Your task to perform on an android device: open app "Truecaller" Image 0: 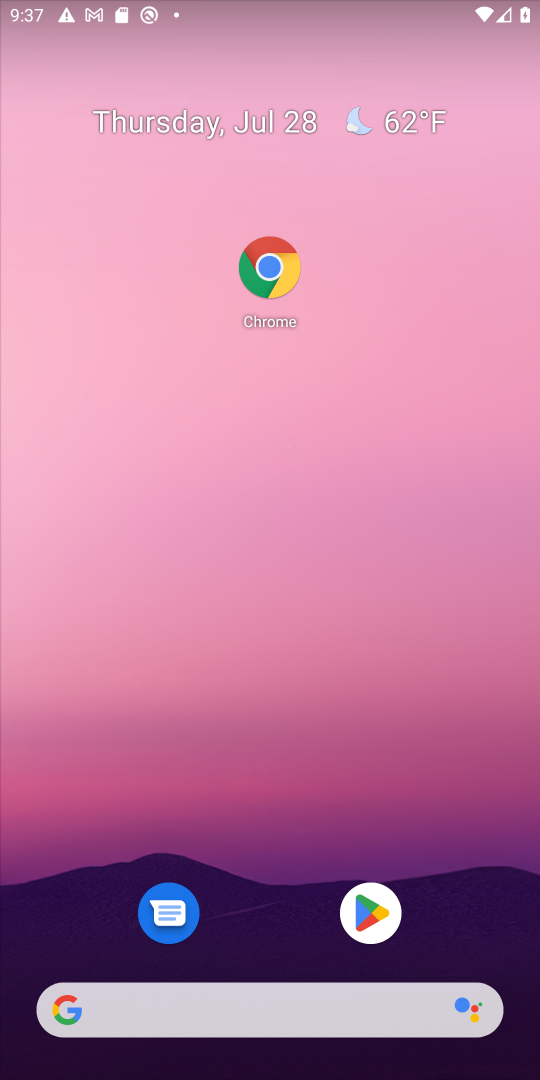
Step 0: press home button
Your task to perform on an android device: open app "Truecaller" Image 1: 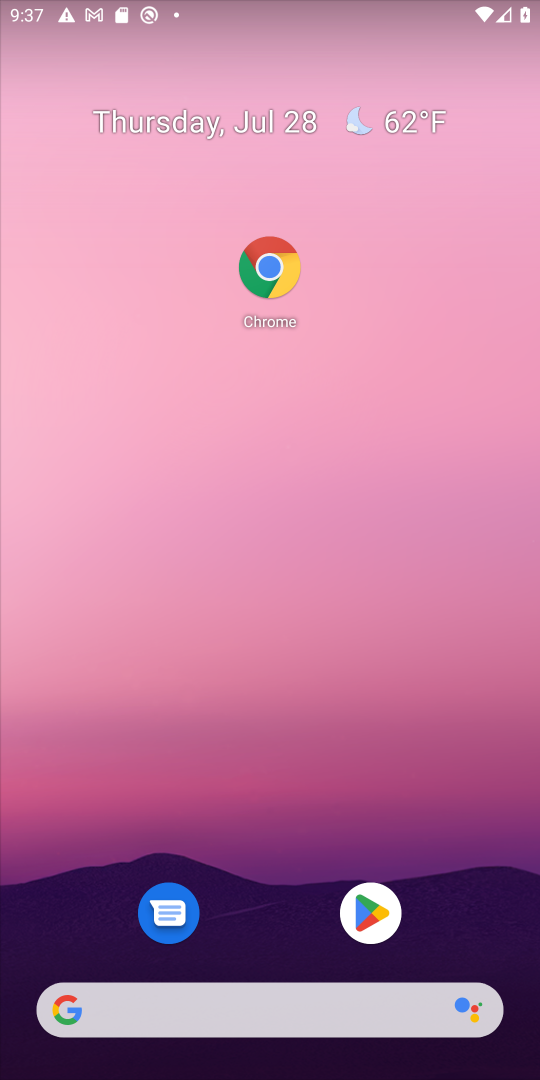
Step 1: drag from (413, 871) to (400, 151)
Your task to perform on an android device: open app "Truecaller" Image 2: 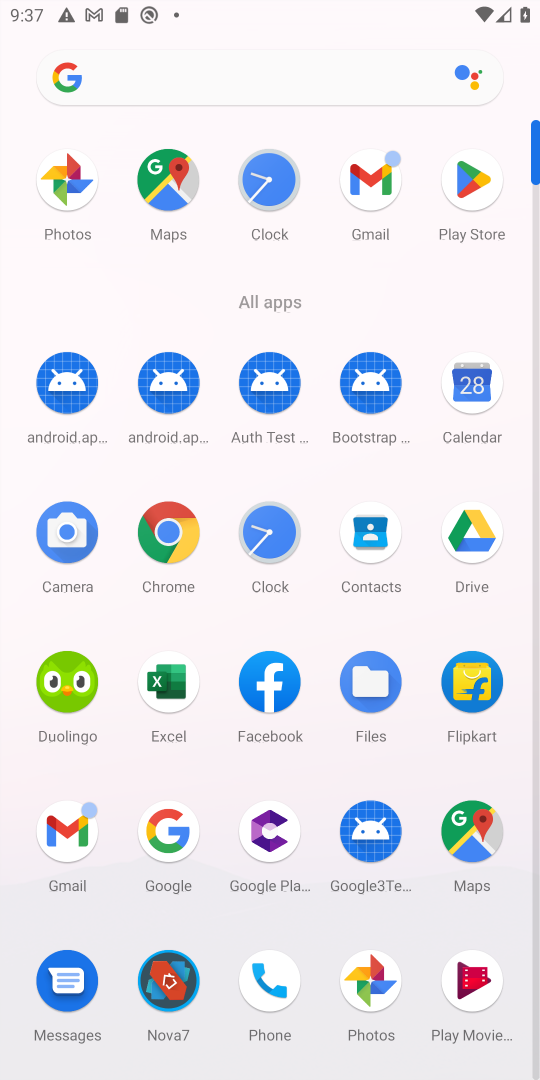
Step 2: click (487, 172)
Your task to perform on an android device: open app "Truecaller" Image 3: 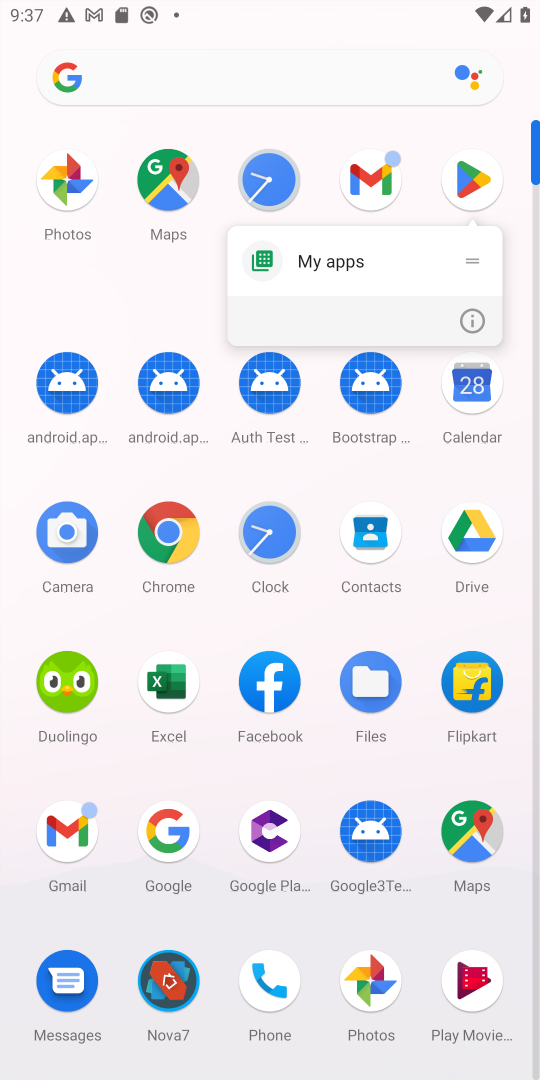
Step 3: click (458, 170)
Your task to perform on an android device: open app "Truecaller" Image 4: 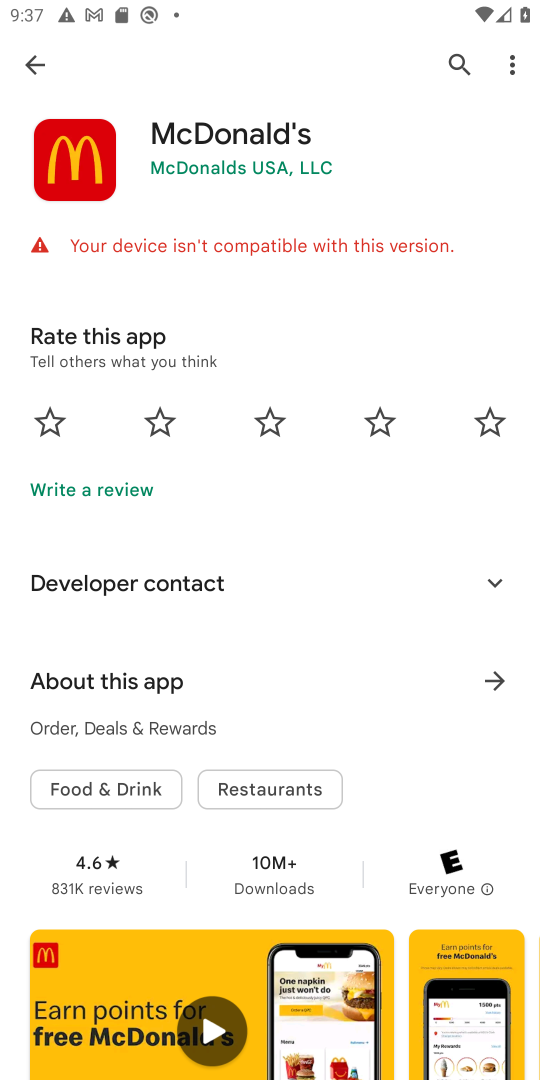
Step 4: click (450, 60)
Your task to perform on an android device: open app "Truecaller" Image 5: 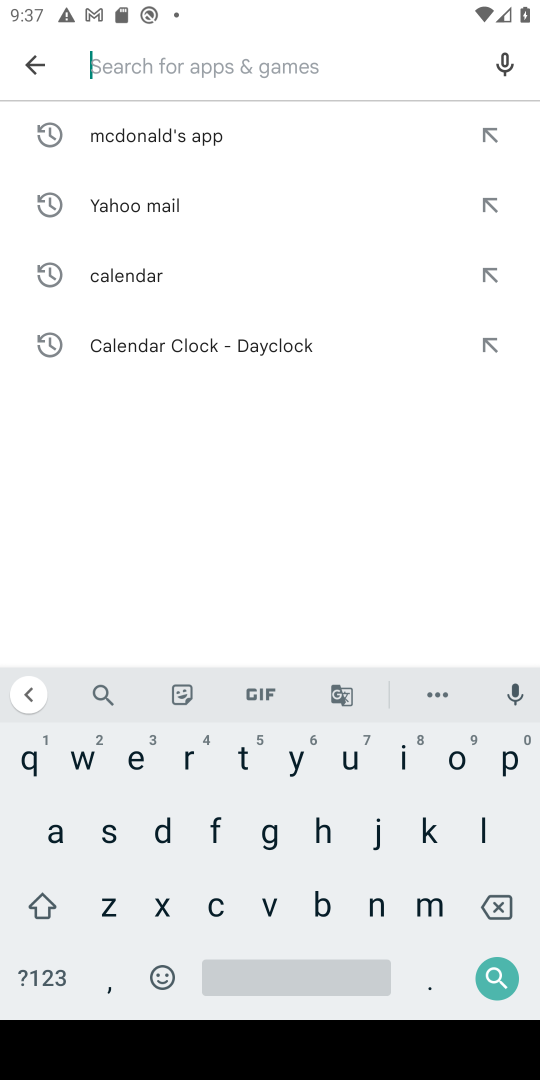
Step 5: click (240, 753)
Your task to perform on an android device: open app "Truecaller" Image 6: 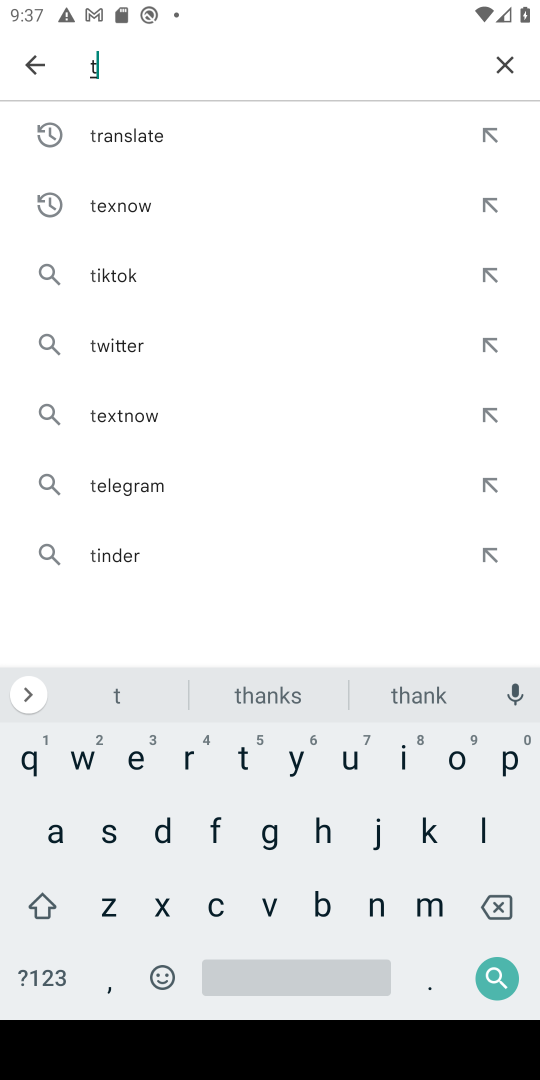
Step 6: click (190, 760)
Your task to perform on an android device: open app "Truecaller" Image 7: 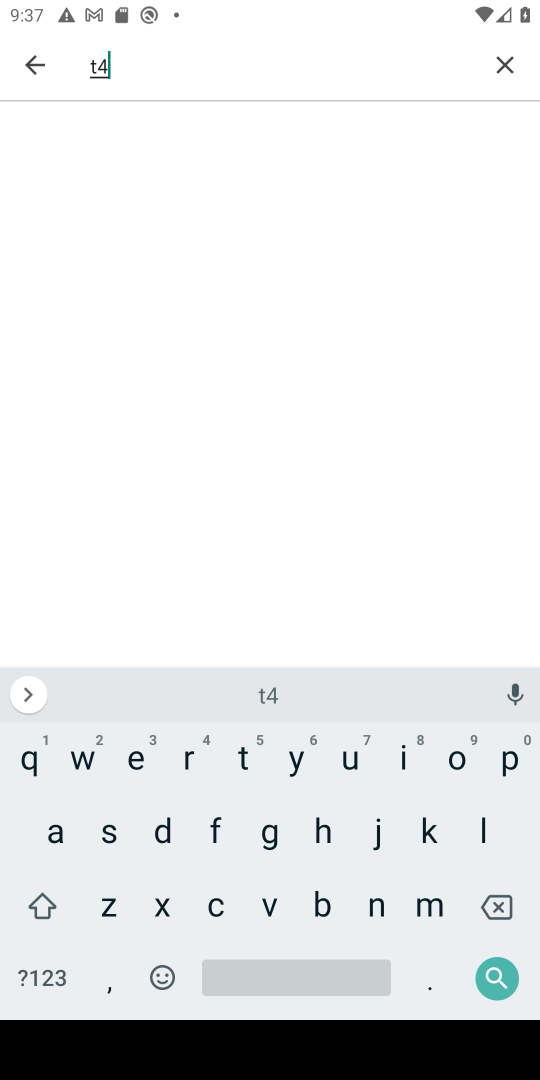
Step 7: click (485, 904)
Your task to perform on an android device: open app "Truecaller" Image 8: 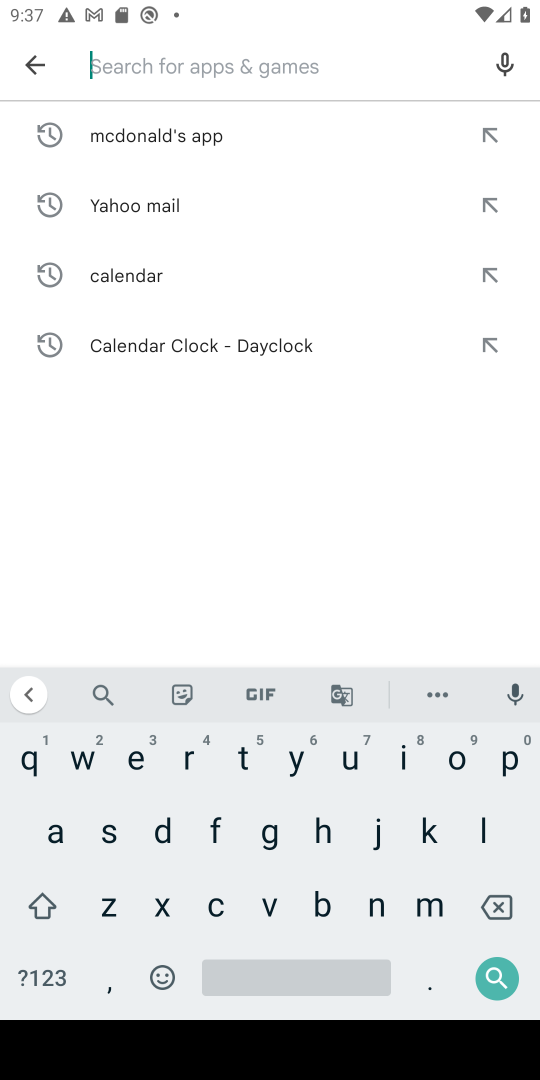
Step 8: type "truecaller"
Your task to perform on an android device: open app "Truecaller" Image 9: 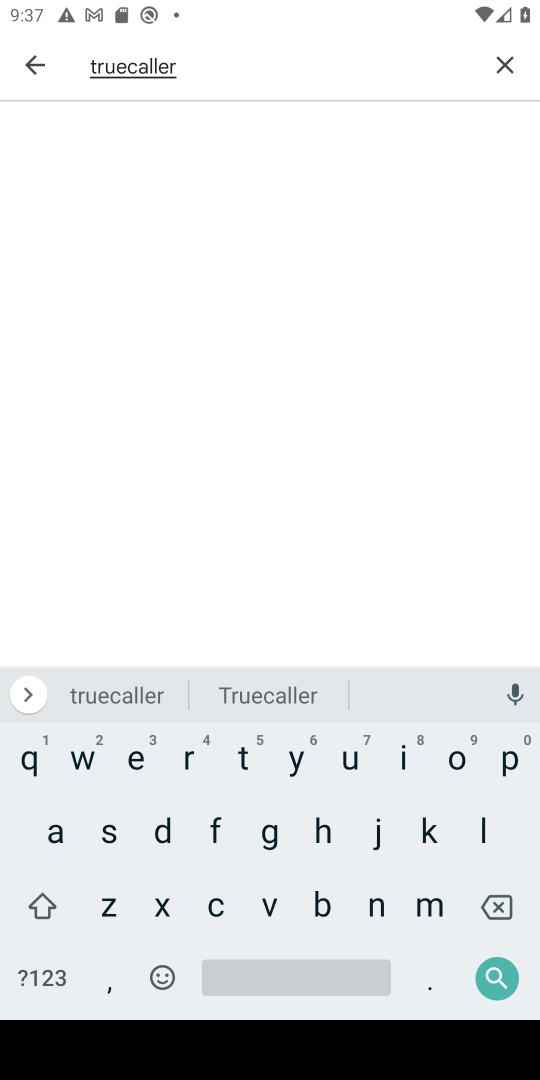
Step 9: click (503, 978)
Your task to perform on an android device: open app "Truecaller" Image 10: 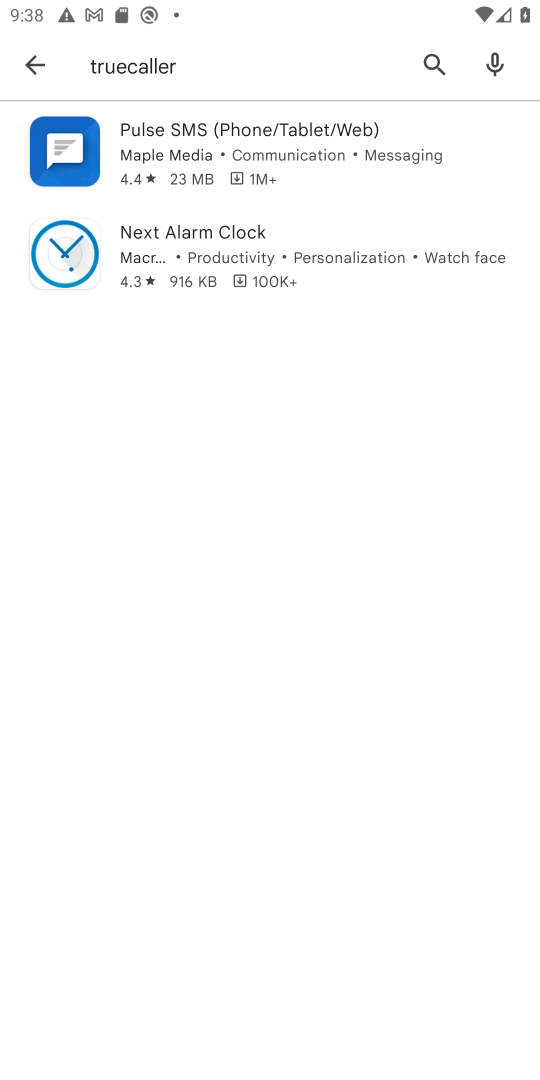
Step 10: task complete